Your task to perform on an android device: Open the web browser Image 0: 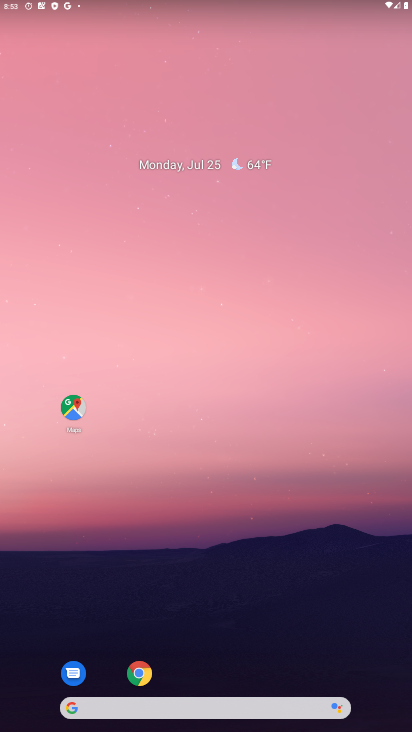
Step 0: drag from (166, 660) to (229, 274)
Your task to perform on an android device: Open the web browser Image 1: 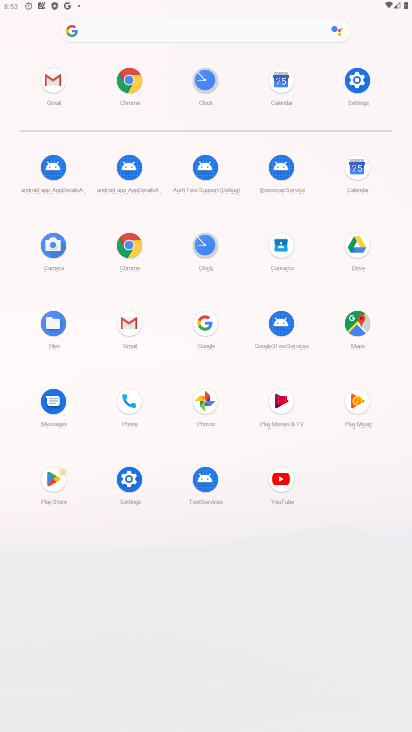
Step 1: click (129, 246)
Your task to perform on an android device: Open the web browser Image 2: 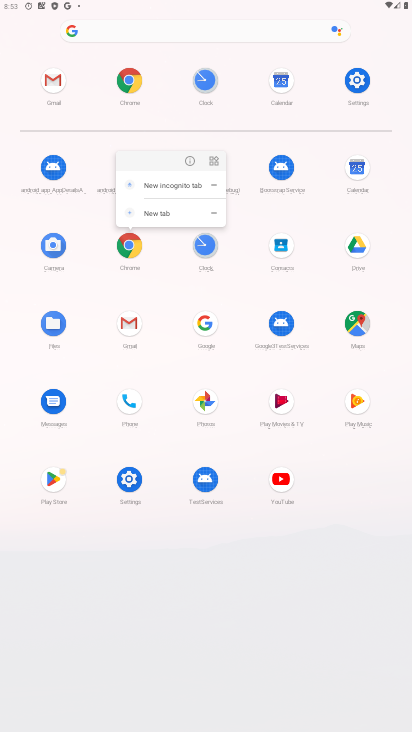
Step 2: click (192, 161)
Your task to perform on an android device: Open the web browser Image 3: 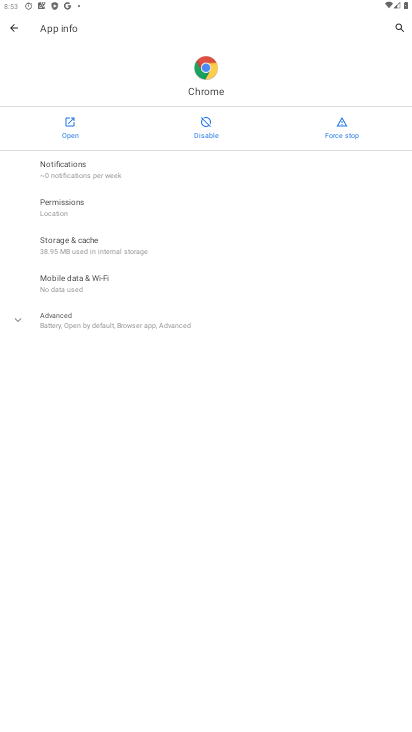
Step 3: drag from (166, 598) to (232, 272)
Your task to perform on an android device: Open the web browser Image 4: 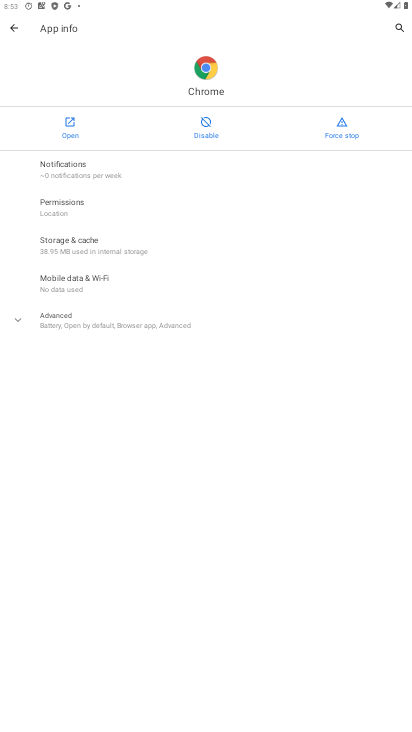
Step 4: click (56, 129)
Your task to perform on an android device: Open the web browser Image 5: 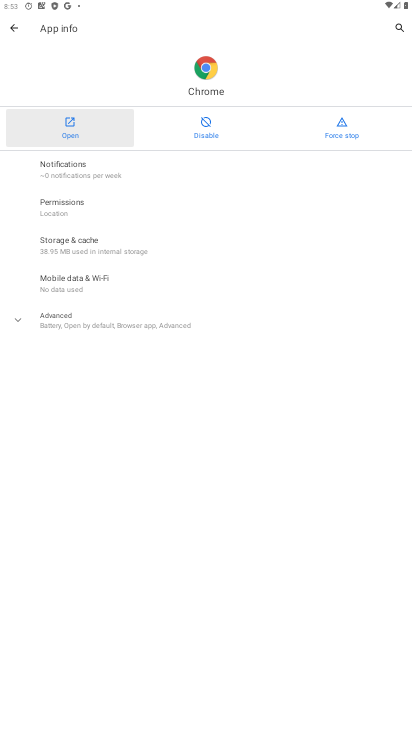
Step 5: click (56, 129)
Your task to perform on an android device: Open the web browser Image 6: 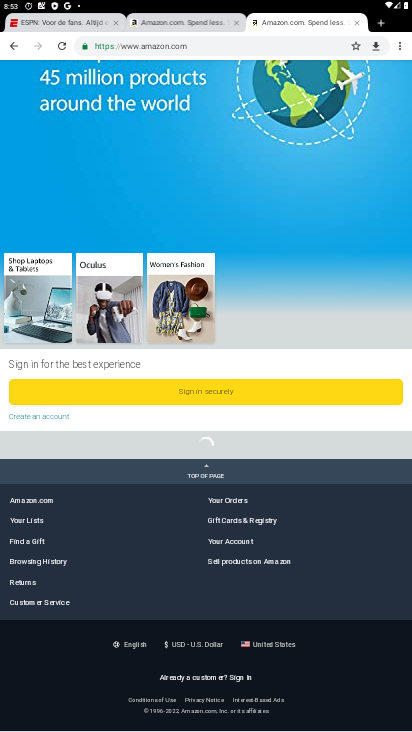
Step 6: task complete